Your task to perform on an android device: open a new tab in the chrome app Image 0: 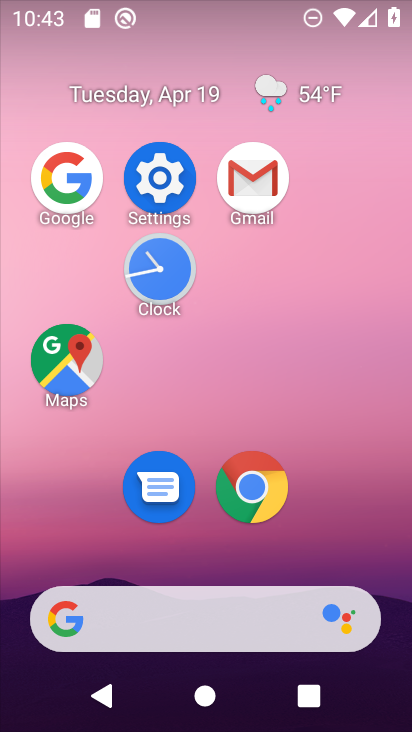
Step 0: click (261, 486)
Your task to perform on an android device: open a new tab in the chrome app Image 1: 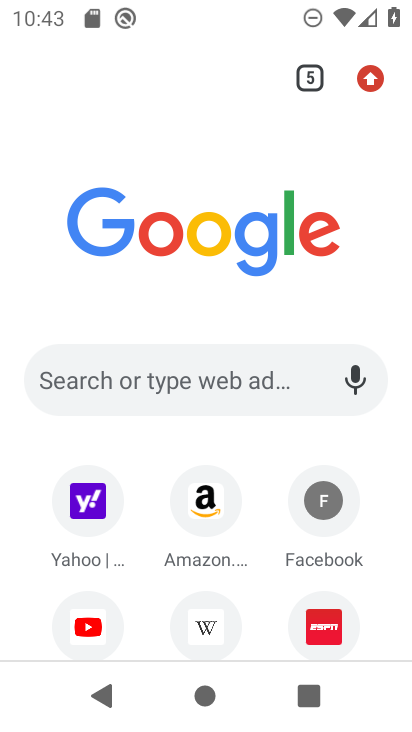
Step 1: click (312, 79)
Your task to perform on an android device: open a new tab in the chrome app Image 2: 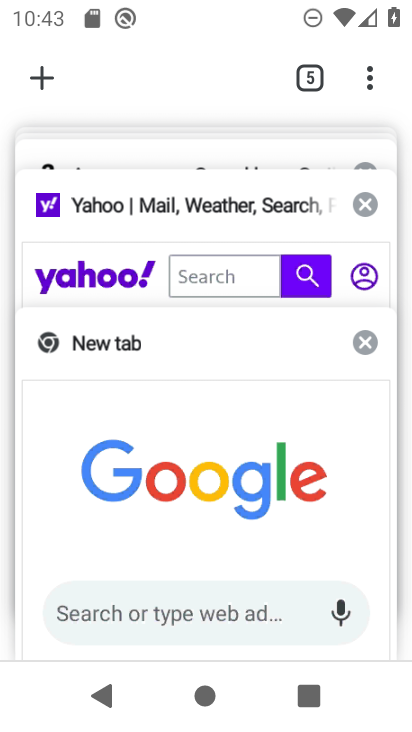
Step 2: click (42, 75)
Your task to perform on an android device: open a new tab in the chrome app Image 3: 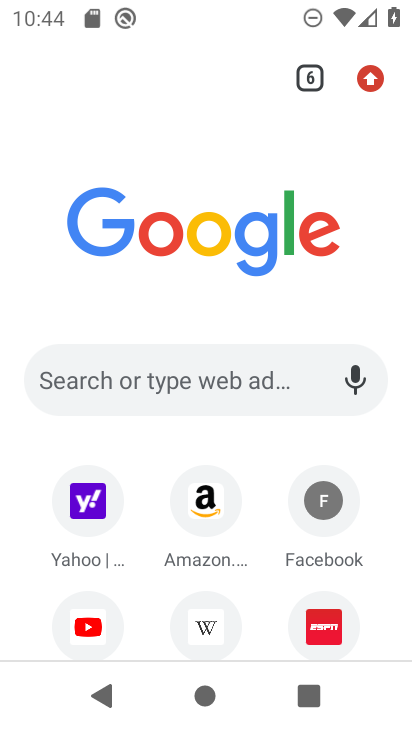
Step 3: task complete